Your task to perform on an android device: Open settings on Google Maps Image 0: 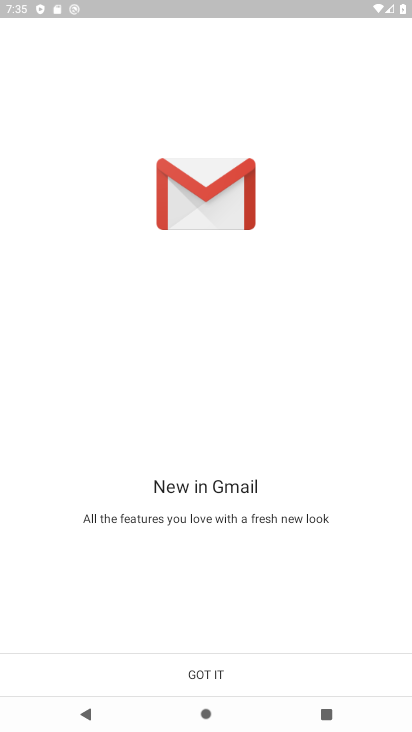
Step 0: press home button
Your task to perform on an android device: Open settings on Google Maps Image 1: 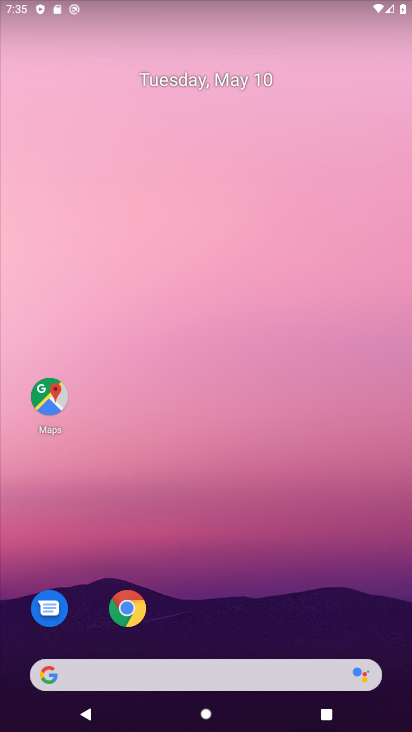
Step 1: click (50, 378)
Your task to perform on an android device: Open settings on Google Maps Image 2: 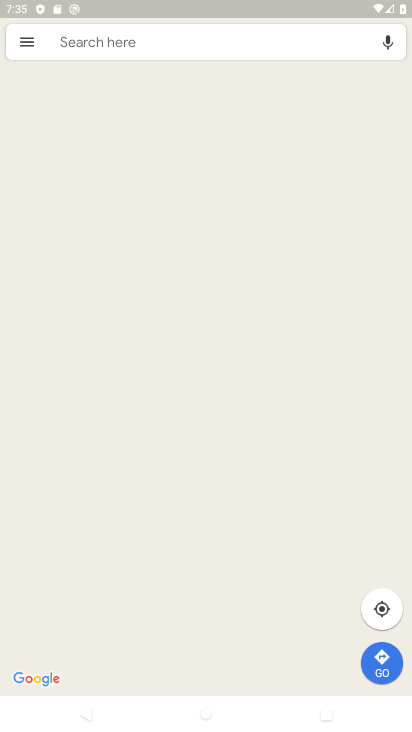
Step 2: click (20, 43)
Your task to perform on an android device: Open settings on Google Maps Image 3: 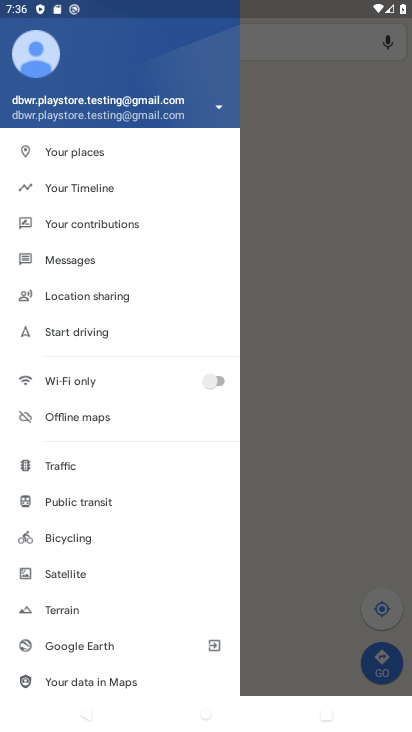
Step 3: drag from (93, 650) to (136, 289)
Your task to perform on an android device: Open settings on Google Maps Image 4: 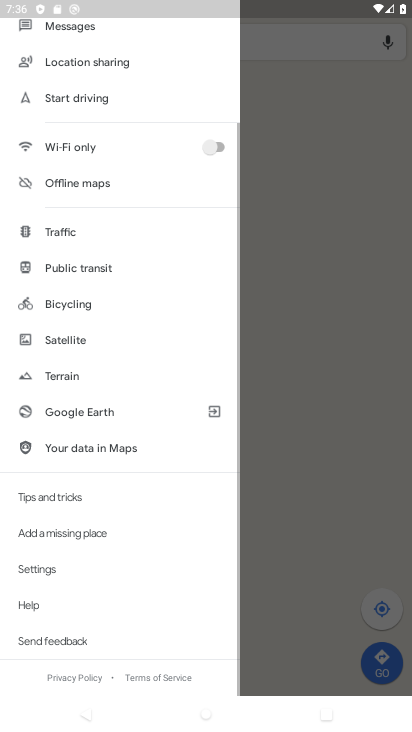
Step 4: click (45, 568)
Your task to perform on an android device: Open settings on Google Maps Image 5: 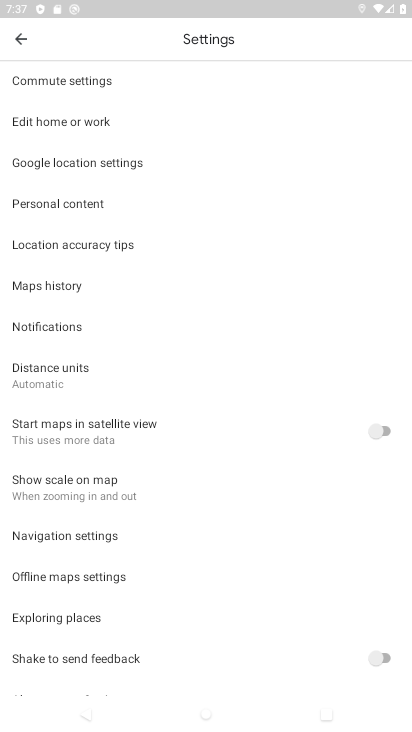
Step 5: task complete